Your task to perform on an android device: Open the Play Movies app and select the watchlist tab. Image 0: 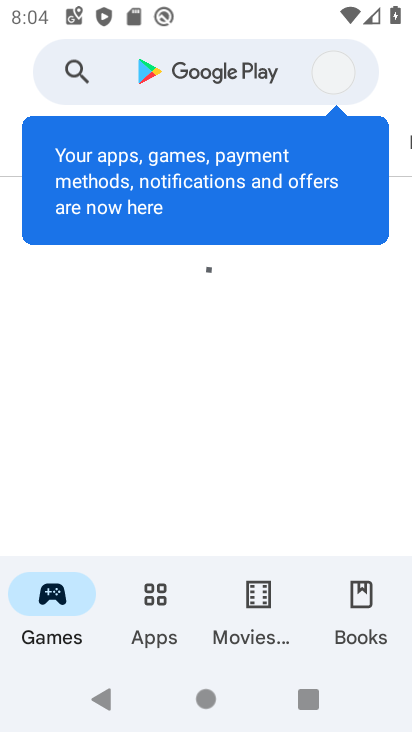
Step 0: press home button
Your task to perform on an android device: Open the Play Movies app and select the watchlist tab. Image 1: 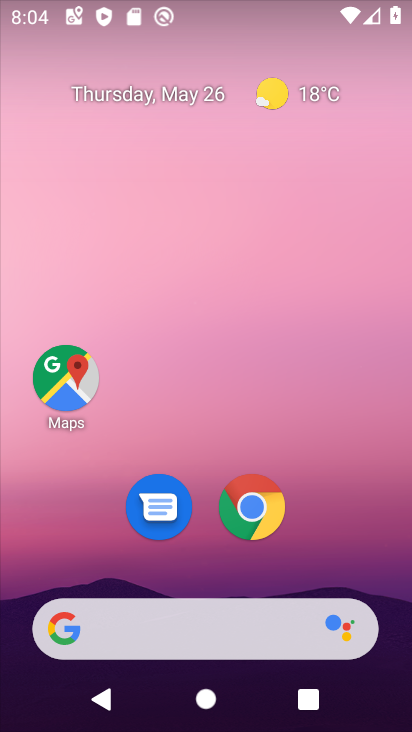
Step 1: drag from (247, 653) to (311, 135)
Your task to perform on an android device: Open the Play Movies app and select the watchlist tab. Image 2: 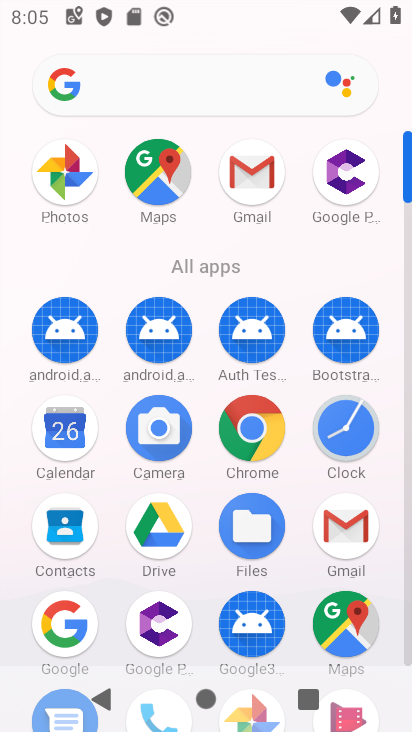
Step 2: drag from (217, 559) to (192, 446)
Your task to perform on an android device: Open the Play Movies app and select the watchlist tab. Image 3: 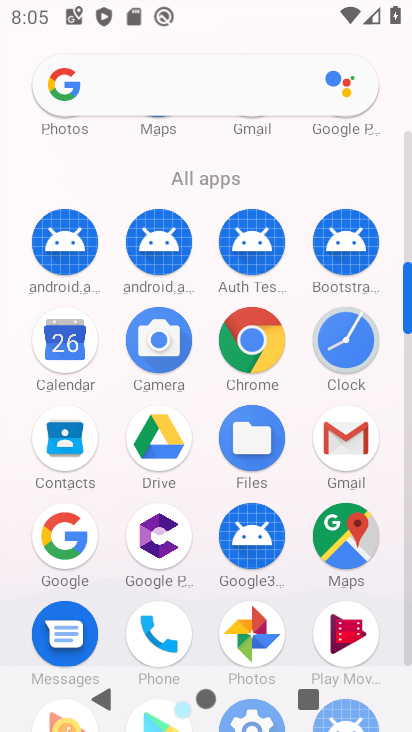
Step 3: click (345, 635)
Your task to perform on an android device: Open the Play Movies app and select the watchlist tab. Image 4: 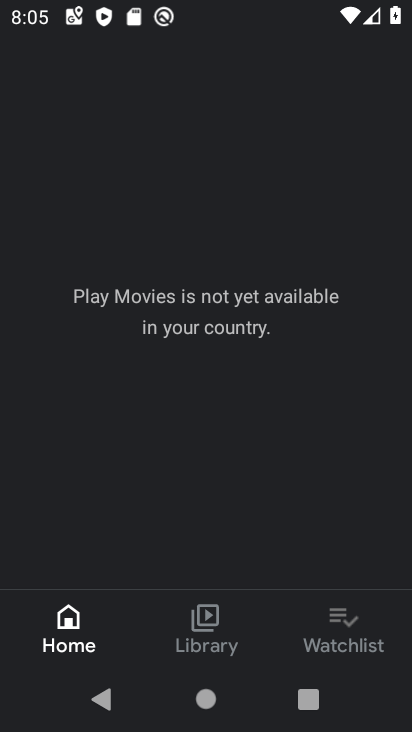
Step 4: click (347, 641)
Your task to perform on an android device: Open the Play Movies app and select the watchlist tab. Image 5: 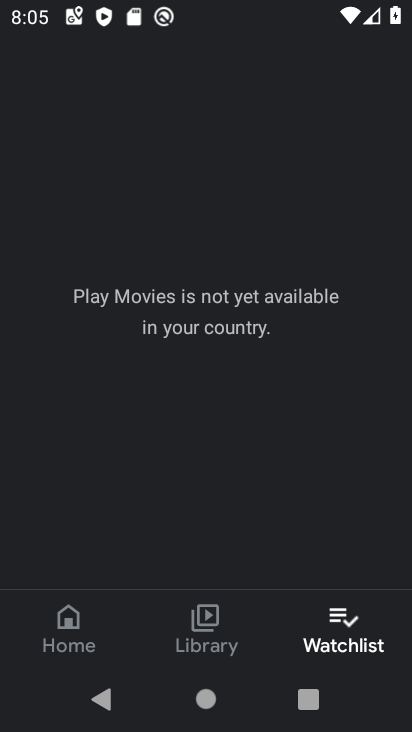
Step 5: task complete